Your task to perform on an android device: Go to sound settings Image 0: 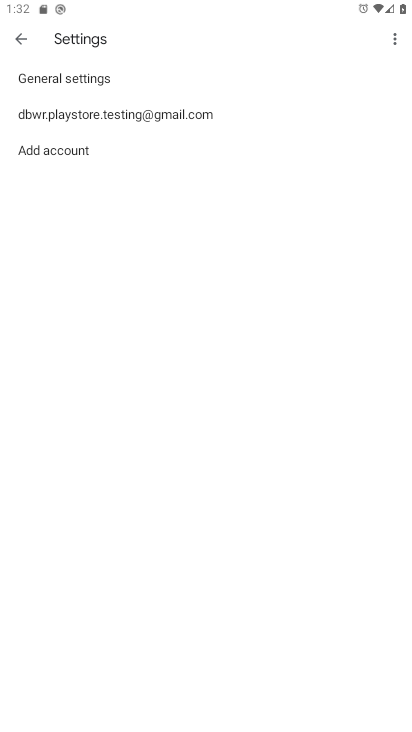
Step 0: press home button
Your task to perform on an android device: Go to sound settings Image 1: 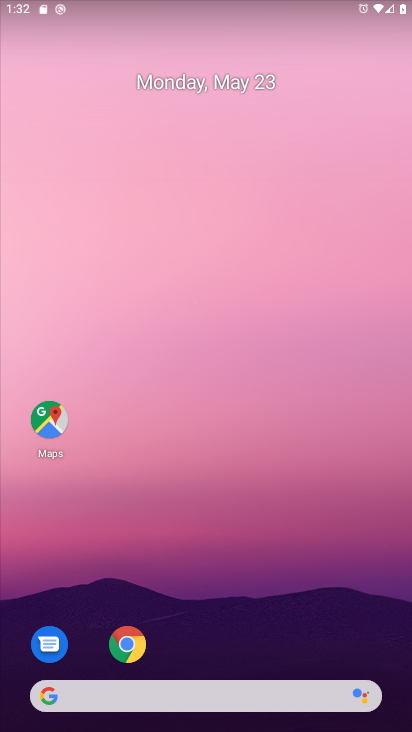
Step 1: drag from (210, 630) to (165, 239)
Your task to perform on an android device: Go to sound settings Image 2: 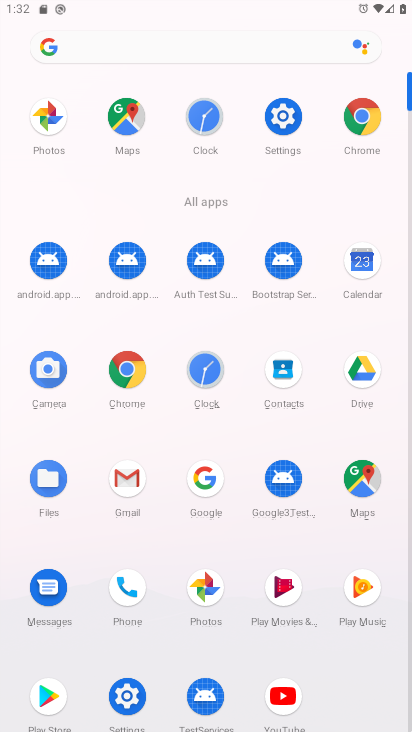
Step 2: click (286, 123)
Your task to perform on an android device: Go to sound settings Image 3: 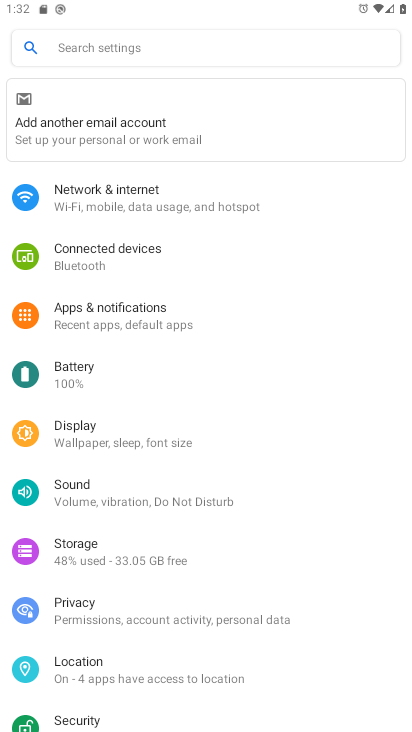
Step 3: click (74, 501)
Your task to perform on an android device: Go to sound settings Image 4: 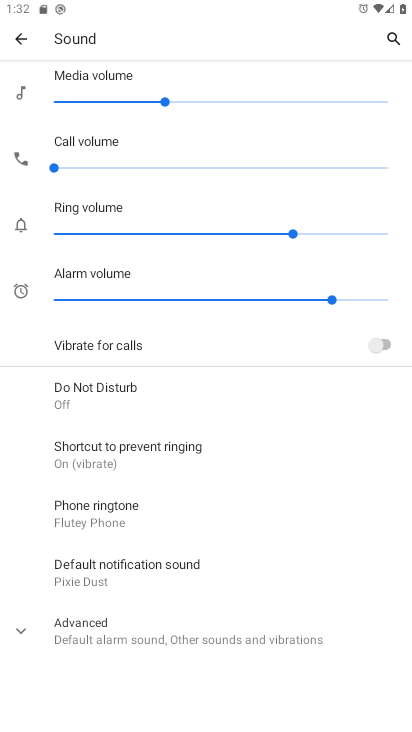
Step 4: task complete